Your task to perform on an android device: clear all cookies in the chrome app Image 0: 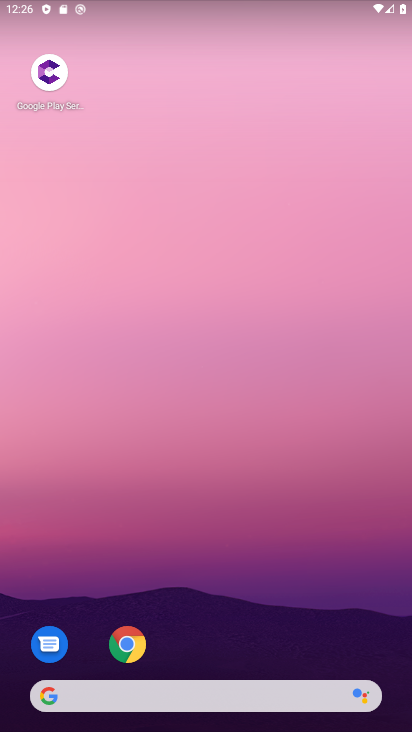
Step 0: press home button
Your task to perform on an android device: clear all cookies in the chrome app Image 1: 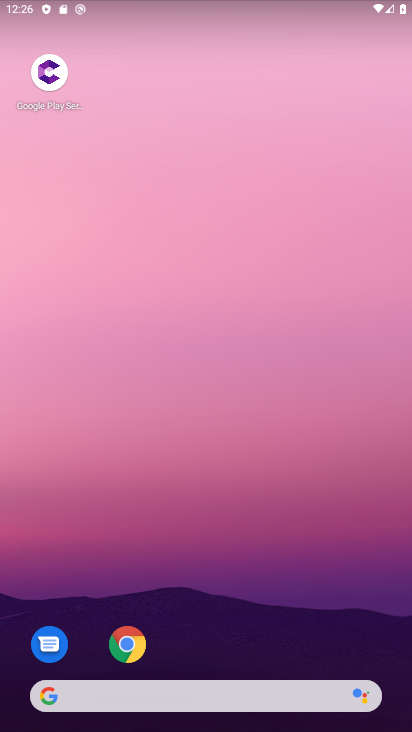
Step 1: click (124, 637)
Your task to perform on an android device: clear all cookies in the chrome app Image 2: 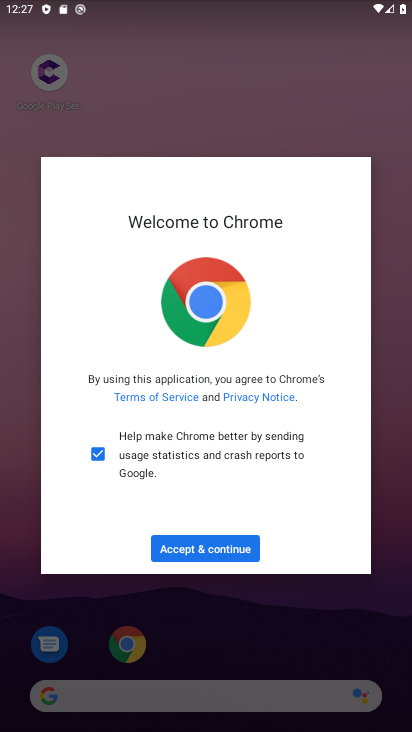
Step 2: click (198, 540)
Your task to perform on an android device: clear all cookies in the chrome app Image 3: 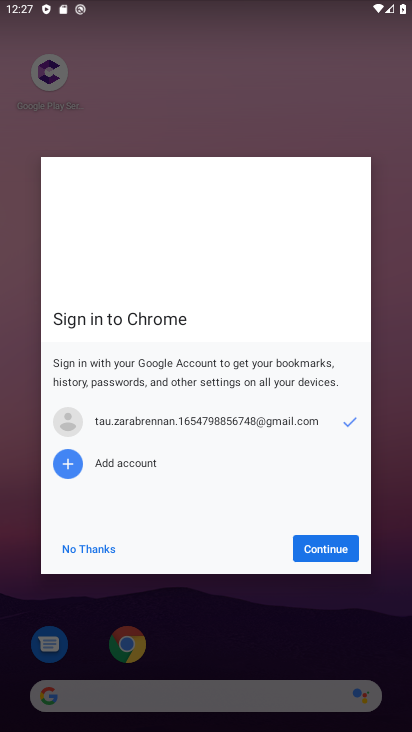
Step 3: click (325, 543)
Your task to perform on an android device: clear all cookies in the chrome app Image 4: 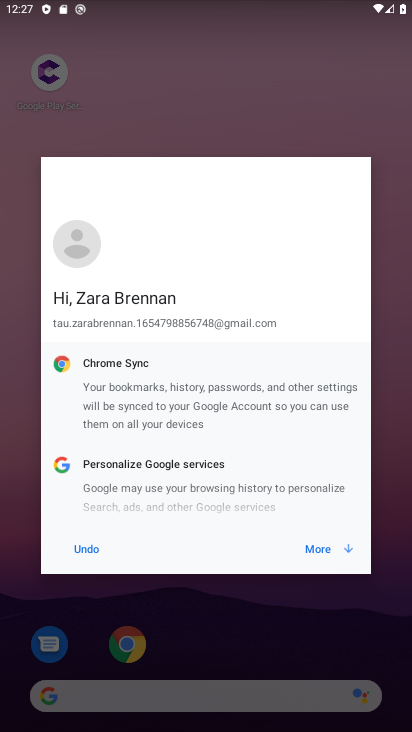
Step 4: click (318, 547)
Your task to perform on an android device: clear all cookies in the chrome app Image 5: 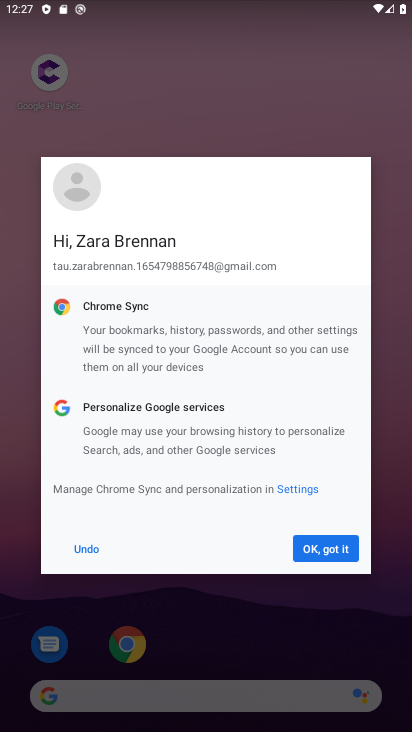
Step 5: click (320, 550)
Your task to perform on an android device: clear all cookies in the chrome app Image 6: 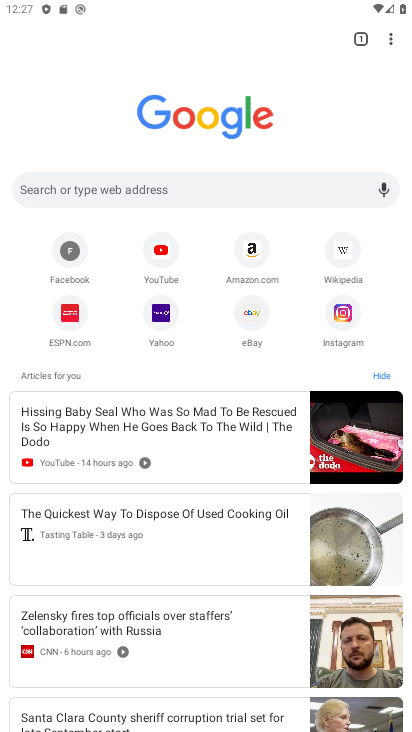
Step 6: click (389, 34)
Your task to perform on an android device: clear all cookies in the chrome app Image 7: 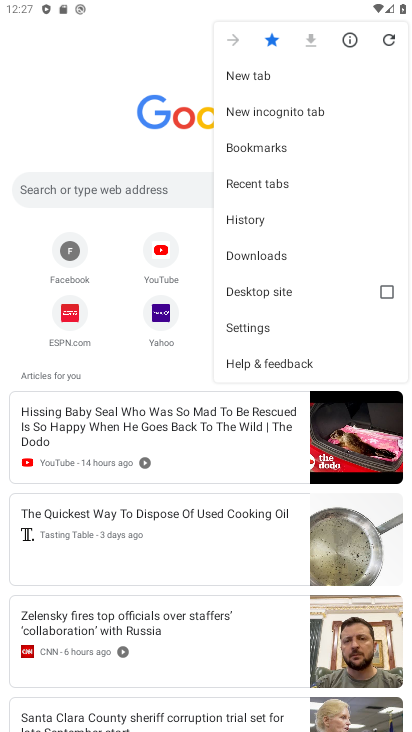
Step 7: click (276, 213)
Your task to perform on an android device: clear all cookies in the chrome app Image 8: 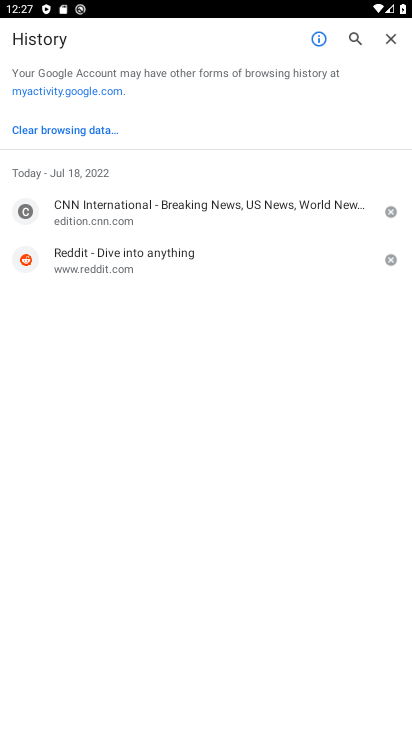
Step 8: click (69, 127)
Your task to perform on an android device: clear all cookies in the chrome app Image 9: 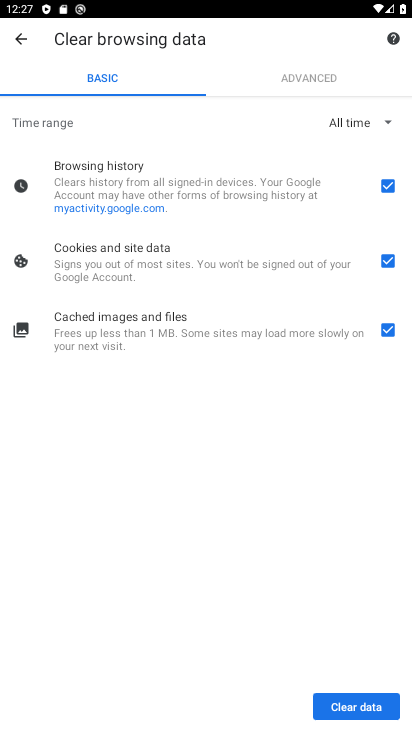
Step 9: click (386, 186)
Your task to perform on an android device: clear all cookies in the chrome app Image 10: 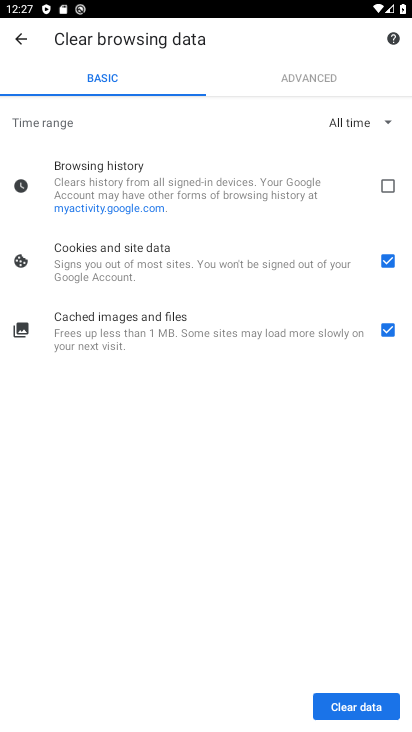
Step 10: click (389, 325)
Your task to perform on an android device: clear all cookies in the chrome app Image 11: 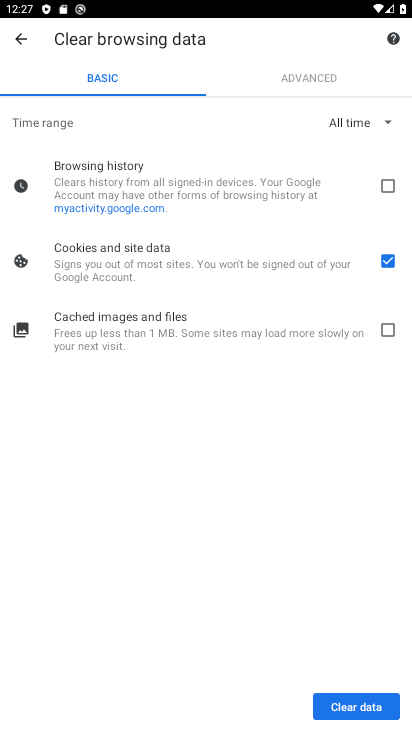
Step 11: click (357, 707)
Your task to perform on an android device: clear all cookies in the chrome app Image 12: 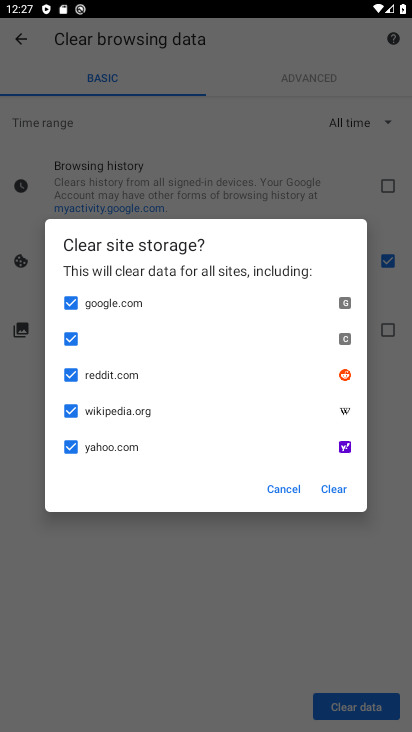
Step 12: click (332, 488)
Your task to perform on an android device: clear all cookies in the chrome app Image 13: 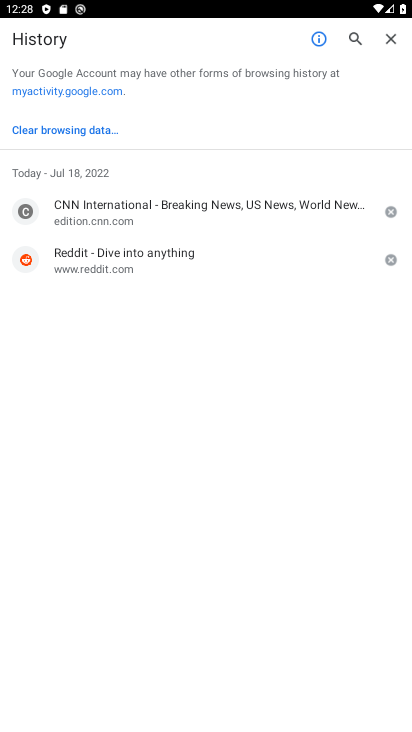
Step 13: task complete